Your task to perform on an android device: Is it going to rain this weekend? Image 0: 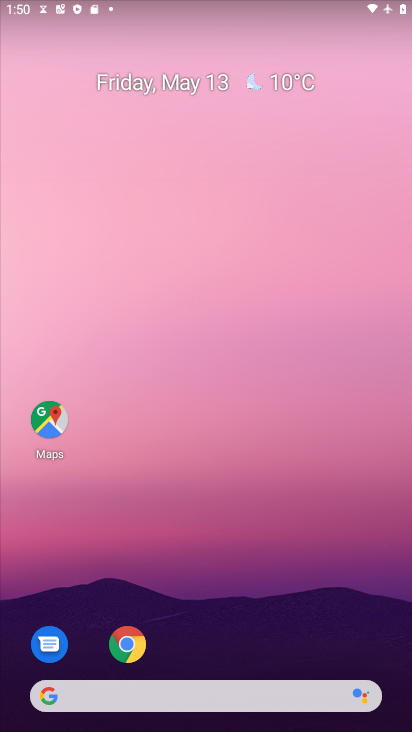
Step 0: drag from (211, 716) to (218, 174)
Your task to perform on an android device: Is it going to rain this weekend? Image 1: 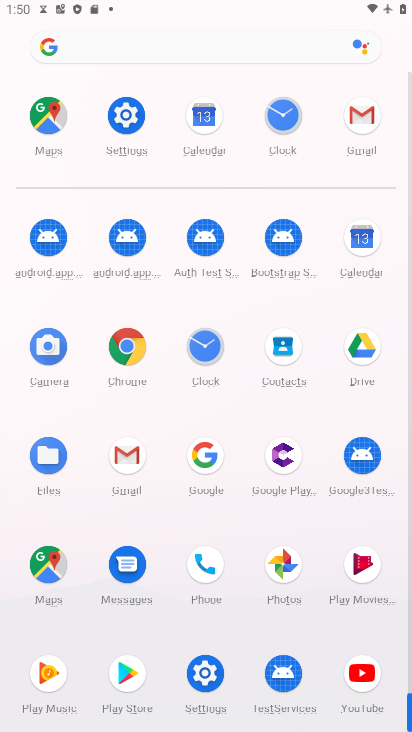
Step 1: click (210, 457)
Your task to perform on an android device: Is it going to rain this weekend? Image 2: 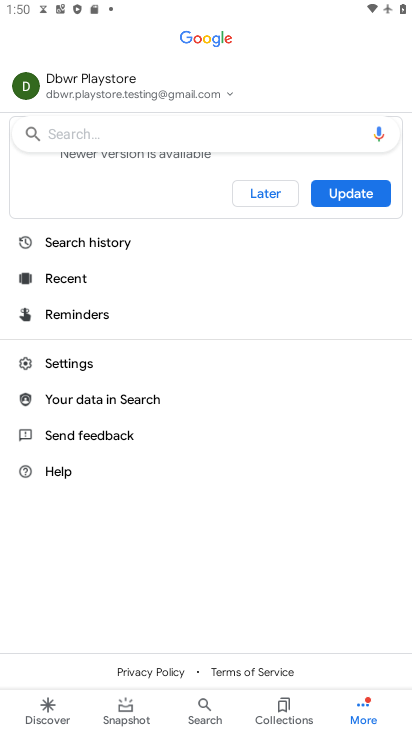
Step 2: click (204, 705)
Your task to perform on an android device: Is it going to rain this weekend? Image 3: 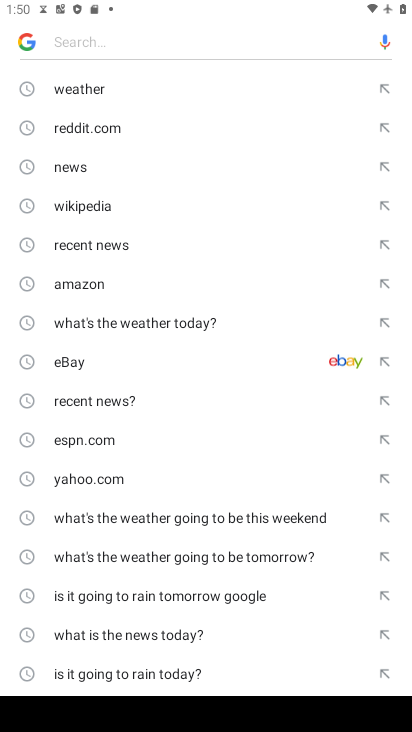
Step 3: click (87, 88)
Your task to perform on an android device: Is it going to rain this weekend? Image 4: 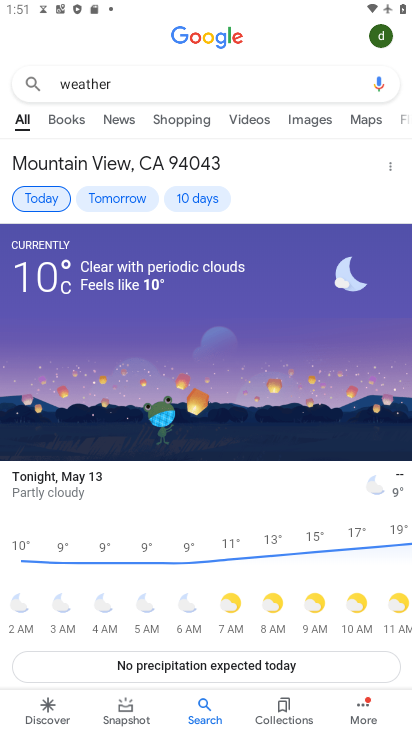
Step 4: click (197, 199)
Your task to perform on an android device: Is it going to rain this weekend? Image 5: 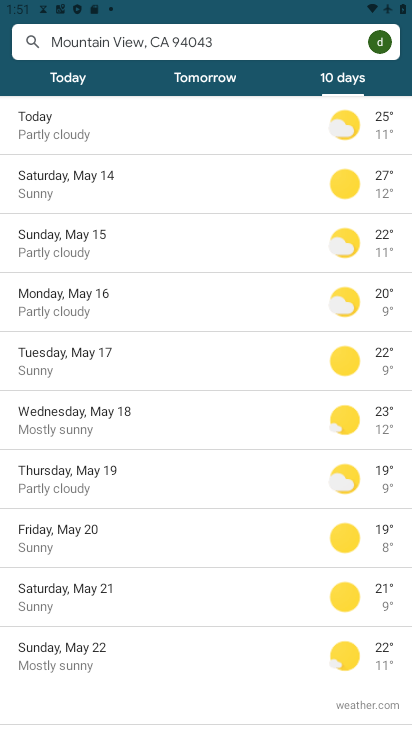
Step 5: click (91, 181)
Your task to perform on an android device: Is it going to rain this weekend? Image 6: 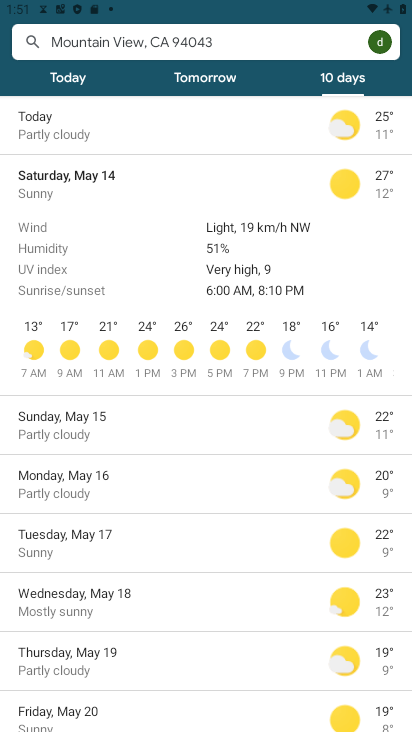
Step 6: task complete